Your task to perform on an android device: turn pop-ups off in chrome Image 0: 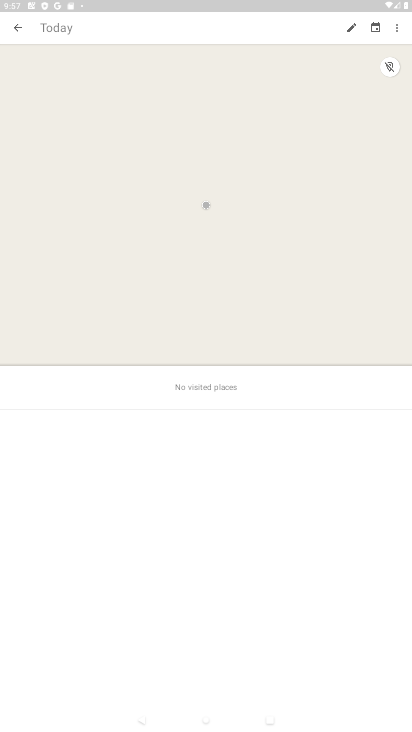
Step 0: press home button
Your task to perform on an android device: turn pop-ups off in chrome Image 1: 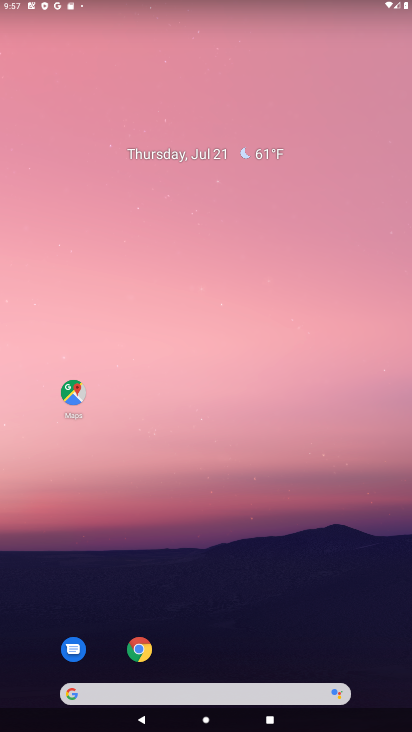
Step 1: click (141, 651)
Your task to perform on an android device: turn pop-ups off in chrome Image 2: 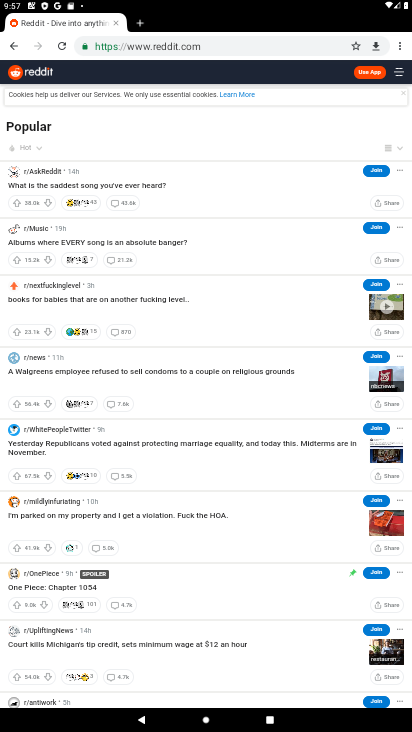
Step 2: click (401, 43)
Your task to perform on an android device: turn pop-ups off in chrome Image 3: 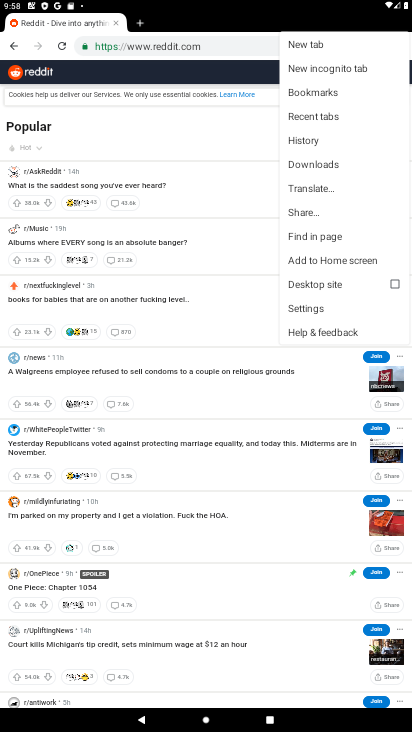
Step 3: click (311, 306)
Your task to perform on an android device: turn pop-ups off in chrome Image 4: 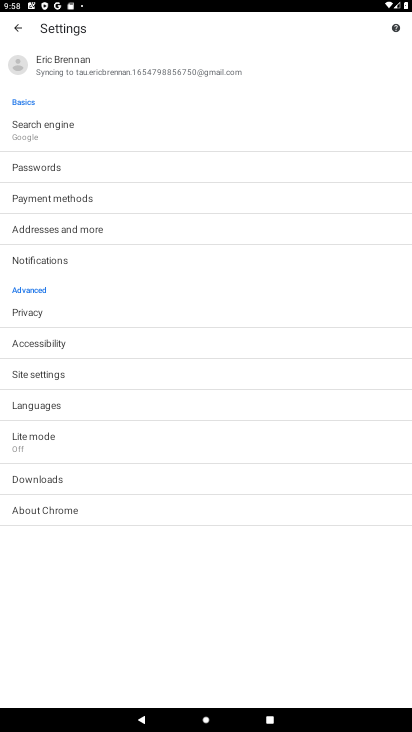
Step 4: click (43, 374)
Your task to perform on an android device: turn pop-ups off in chrome Image 5: 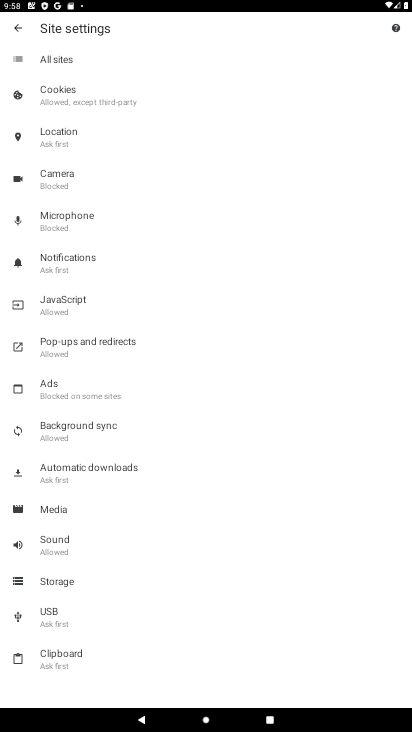
Step 5: click (65, 338)
Your task to perform on an android device: turn pop-ups off in chrome Image 6: 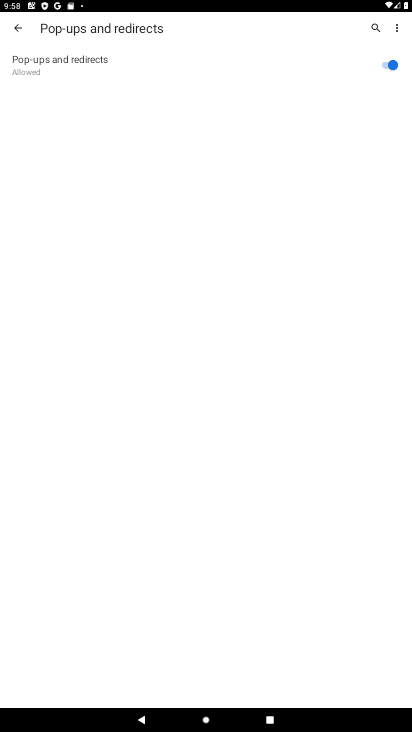
Step 6: click (385, 63)
Your task to perform on an android device: turn pop-ups off in chrome Image 7: 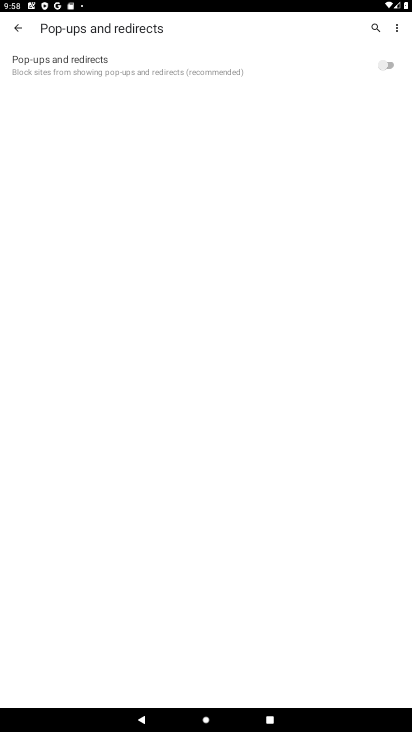
Step 7: task complete